Your task to perform on an android device: make emails show in primary in the gmail app Image 0: 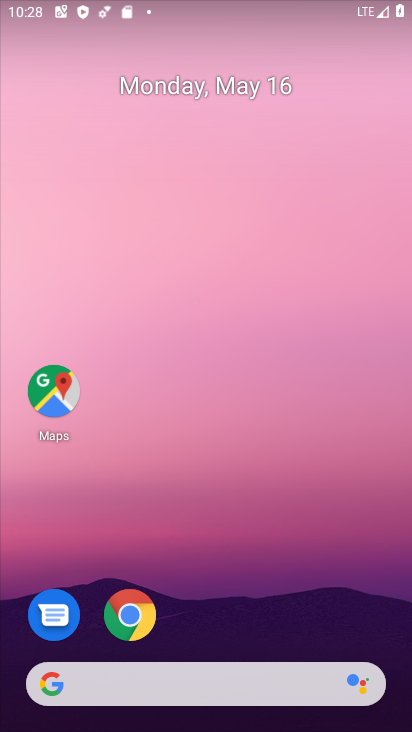
Step 0: drag from (233, 600) to (294, 118)
Your task to perform on an android device: make emails show in primary in the gmail app Image 1: 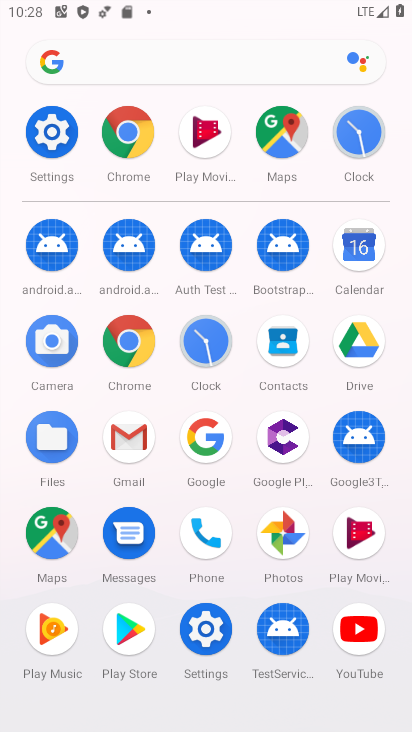
Step 1: click (141, 455)
Your task to perform on an android device: make emails show in primary in the gmail app Image 2: 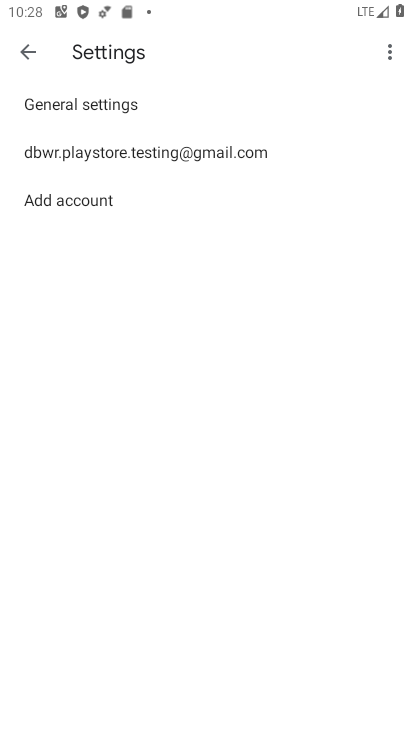
Step 2: click (135, 105)
Your task to perform on an android device: make emails show in primary in the gmail app Image 3: 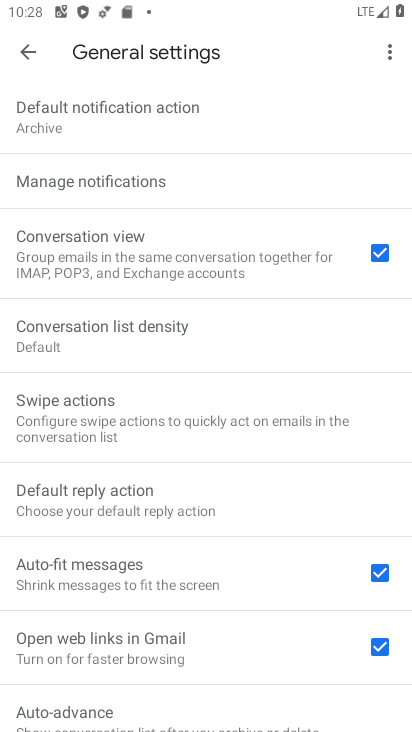
Step 3: task complete